Your task to perform on an android device: See recent photos Image 0: 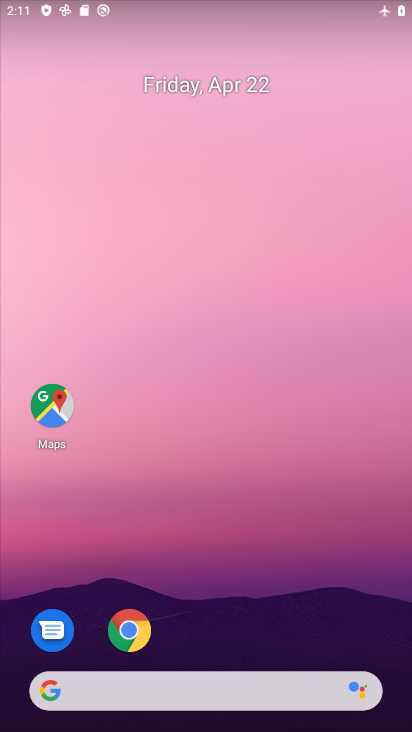
Step 0: drag from (355, 504) to (339, 115)
Your task to perform on an android device: See recent photos Image 1: 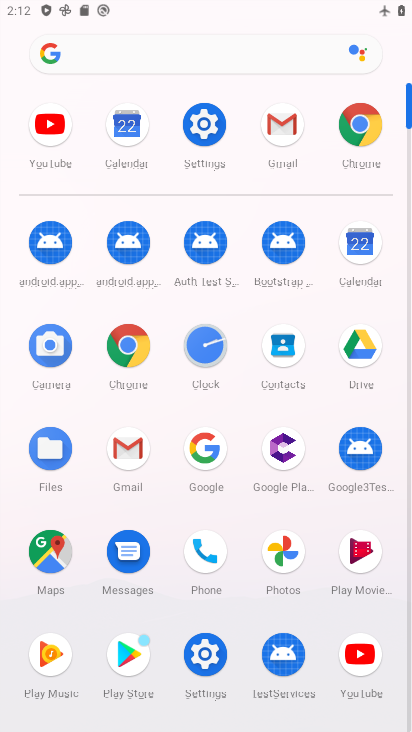
Step 1: click (277, 556)
Your task to perform on an android device: See recent photos Image 2: 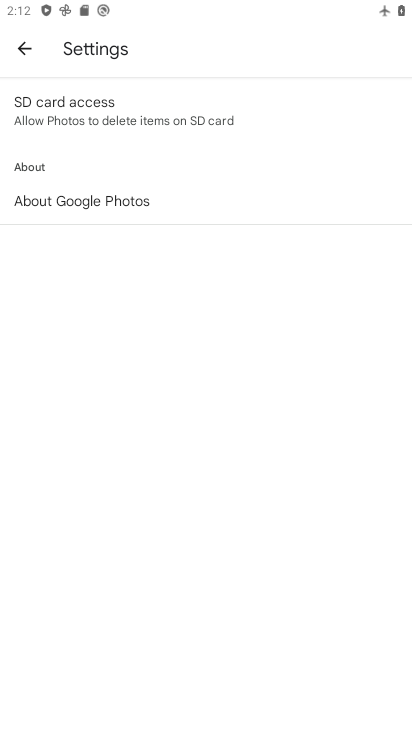
Step 2: click (27, 51)
Your task to perform on an android device: See recent photos Image 3: 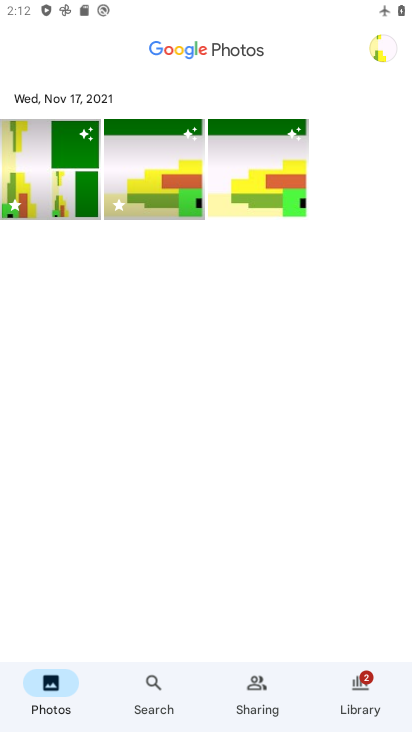
Step 3: task complete